Your task to perform on an android device: Open display settings Image 0: 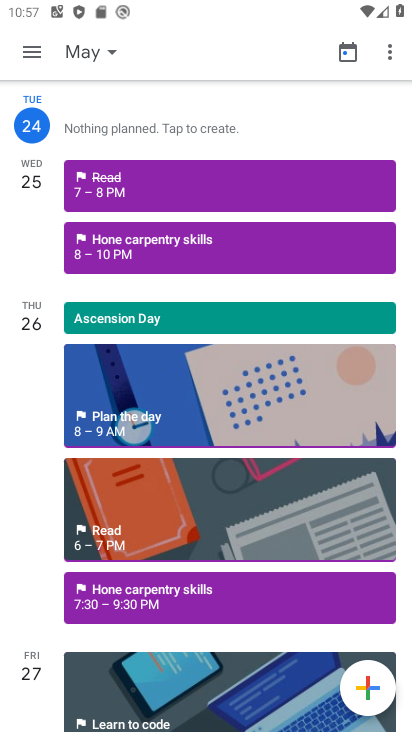
Step 0: press home button
Your task to perform on an android device: Open display settings Image 1: 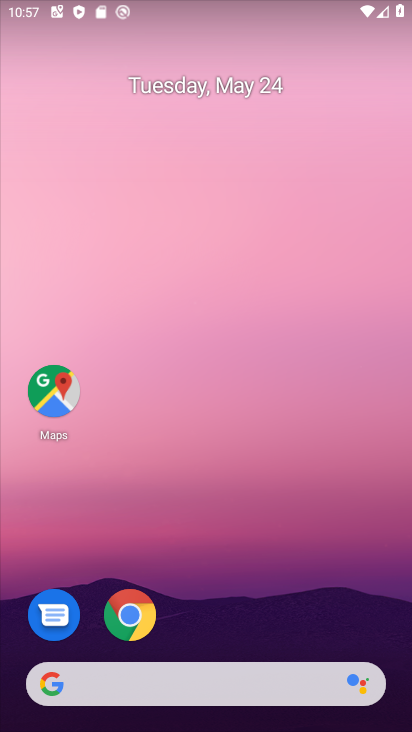
Step 1: drag from (168, 481) to (134, 290)
Your task to perform on an android device: Open display settings Image 2: 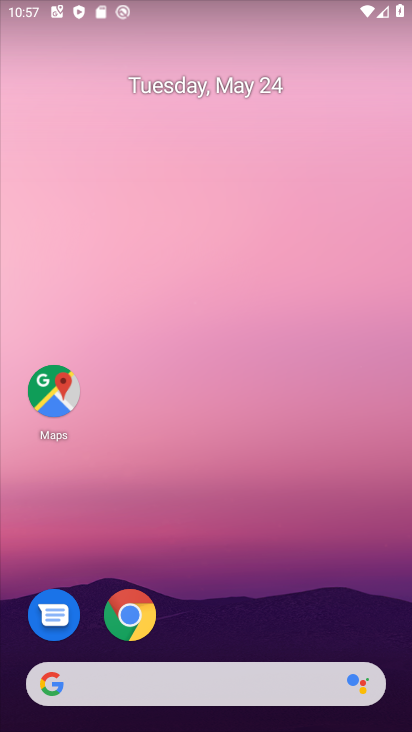
Step 2: drag from (209, 655) to (91, 196)
Your task to perform on an android device: Open display settings Image 3: 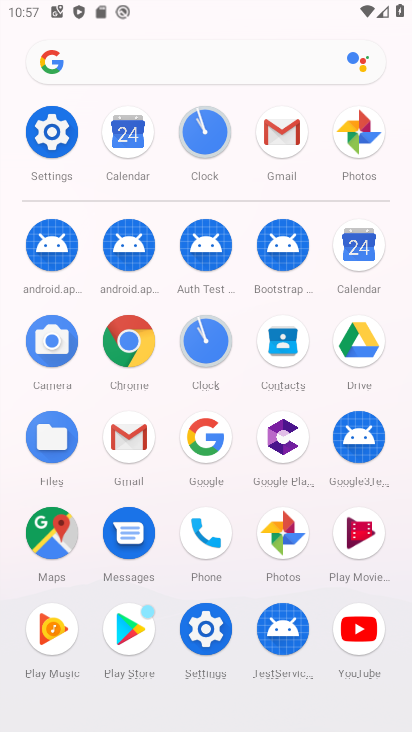
Step 3: click (47, 134)
Your task to perform on an android device: Open display settings Image 4: 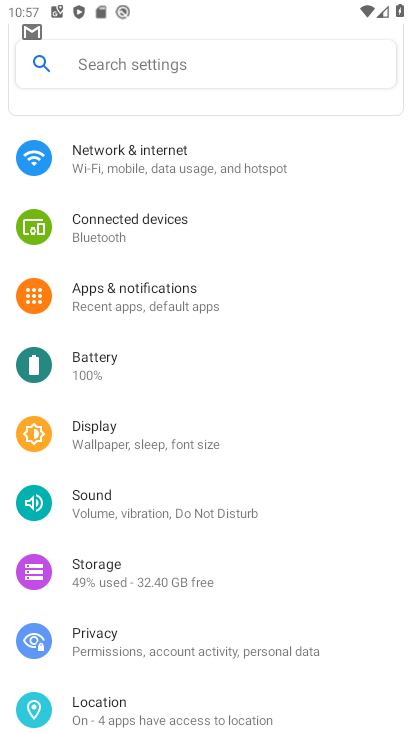
Step 4: click (132, 434)
Your task to perform on an android device: Open display settings Image 5: 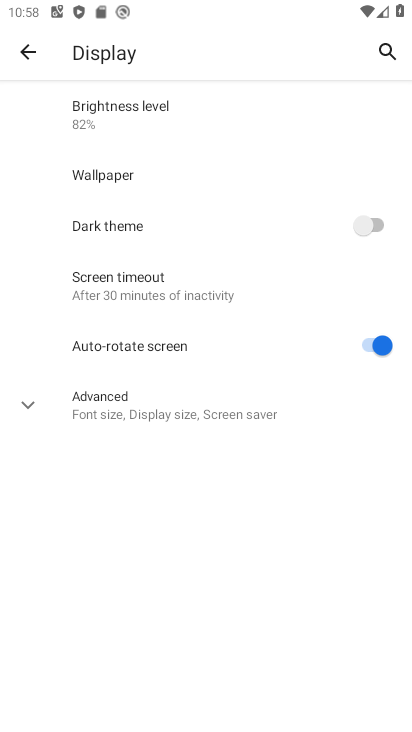
Step 5: task complete